Your task to perform on an android device: delete browsing data in the chrome app Image 0: 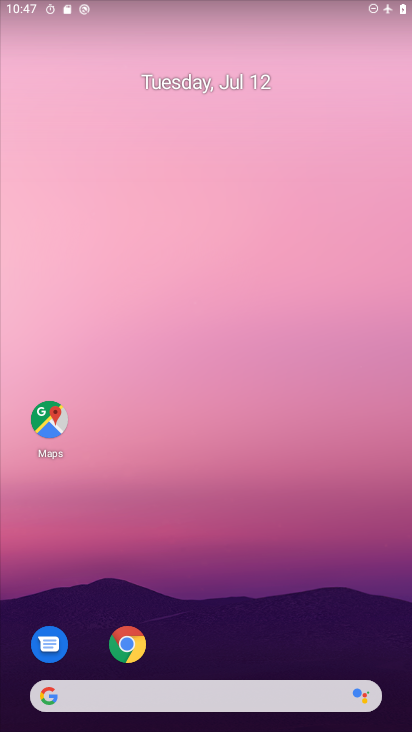
Step 0: click (125, 625)
Your task to perform on an android device: delete browsing data in the chrome app Image 1: 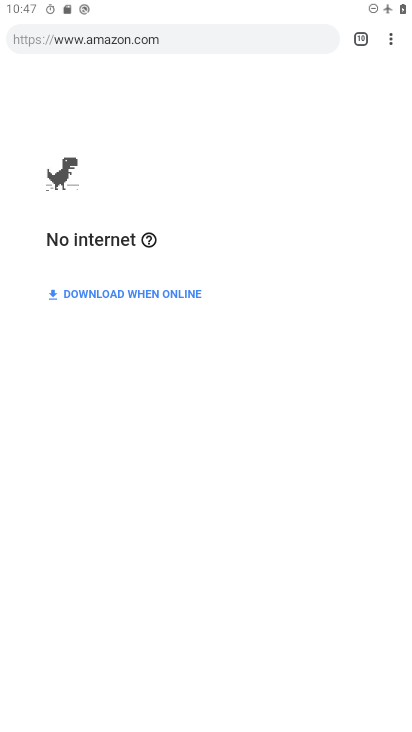
Step 1: click (385, 40)
Your task to perform on an android device: delete browsing data in the chrome app Image 2: 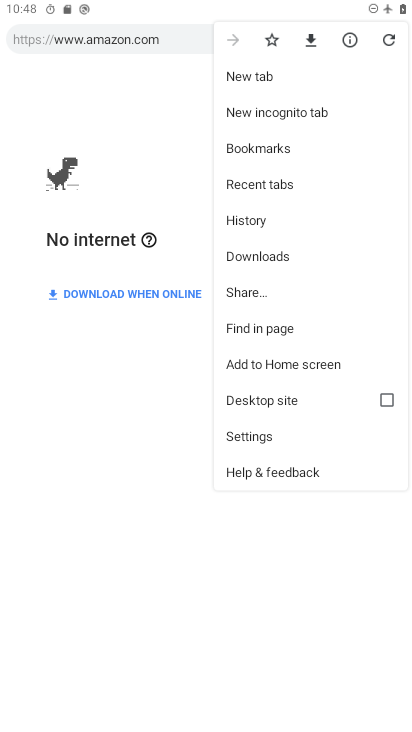
Step 2: click (265, 231)
Your task to perform on an android device: delete browsing data in the chrome app Image 3: 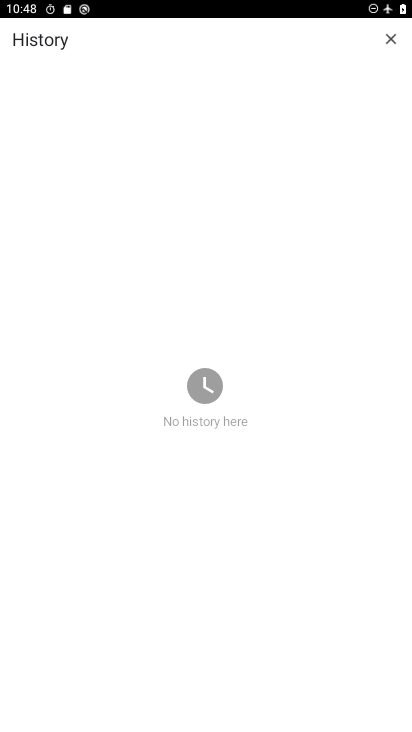
Step 3: task complete